Your task to perform on an android device: Open eBay Image 0: 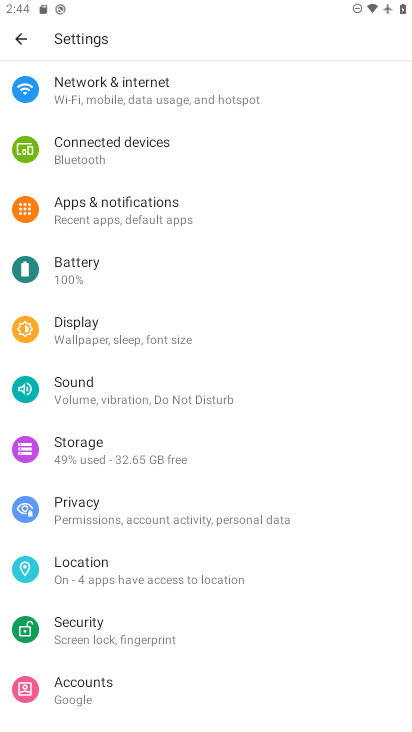
Step 0: press home button
Your task to perform on an android device: Open eBay Image 1: 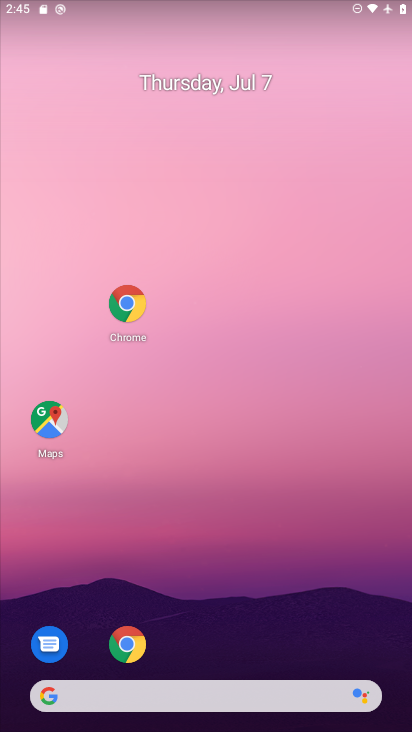
Step 1: click (234, 437)
Your task to perform on an android device: Open eBay Image 2: 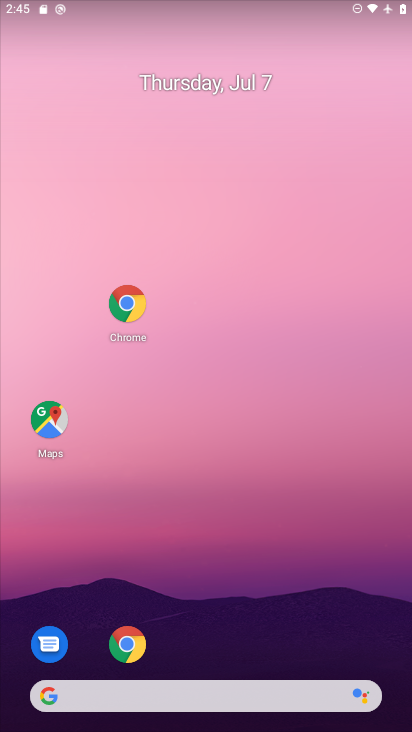
Step 2: drag from (379, 443) to (253, 598)
Your task to perform on an android device: Open eBay Image 3: 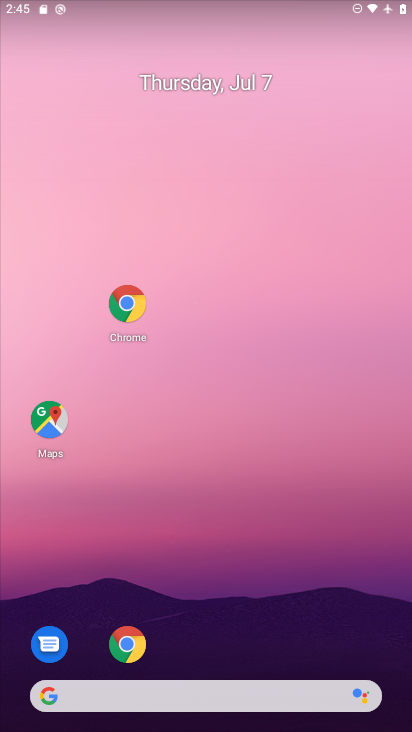
Step 3: click (177, 626)
Your task to perform on an android device: Open eBay Image 4: 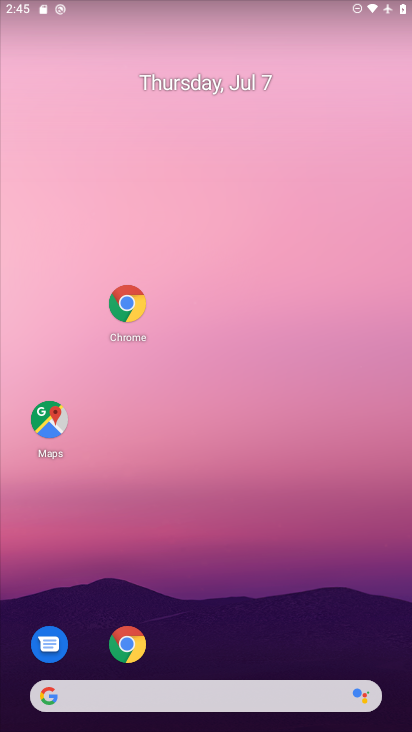
Step 4: click (125, 633)
Your task to perform on an android device: Open eBay Image 5: 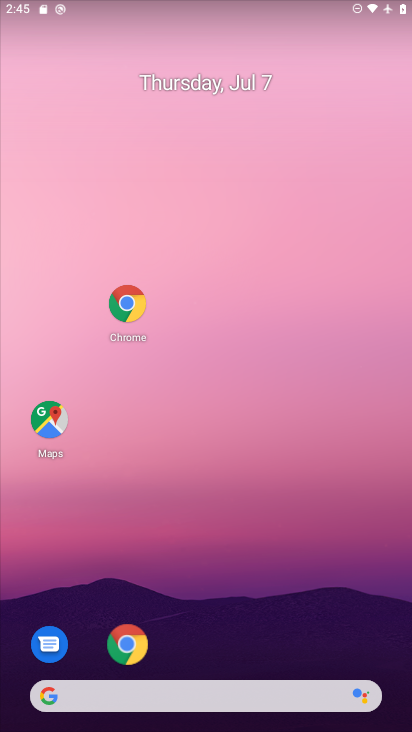
Step 5: click (184, 555)
Your task to perform on an android device: Open eBay Image 6: 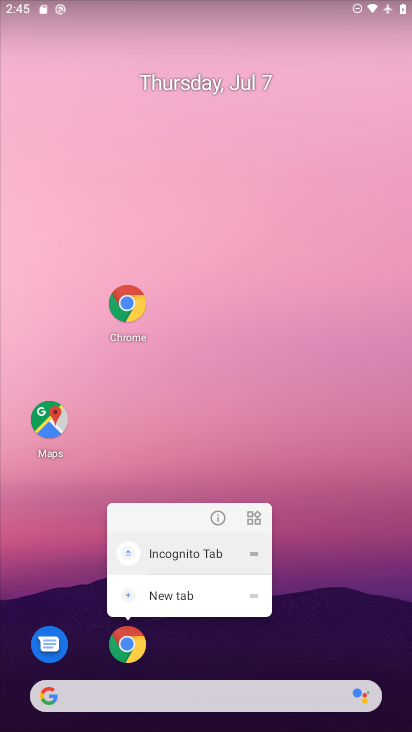
Step 6: click (207, 514)
Your task to perform on an android device: Open eBay Image 7: 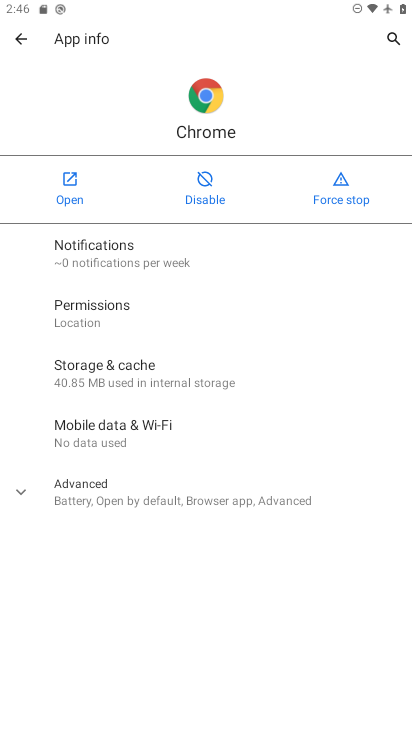
Step 7: click (70, 175)
Your task to perform on an android device: Open eBay Image 8: 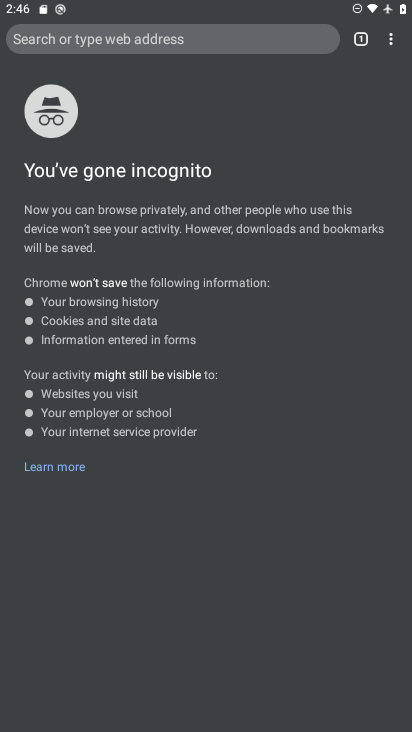
Step 8: task complete